Your task to perform on an android device: turn pop-ups on in chrome Image 0: 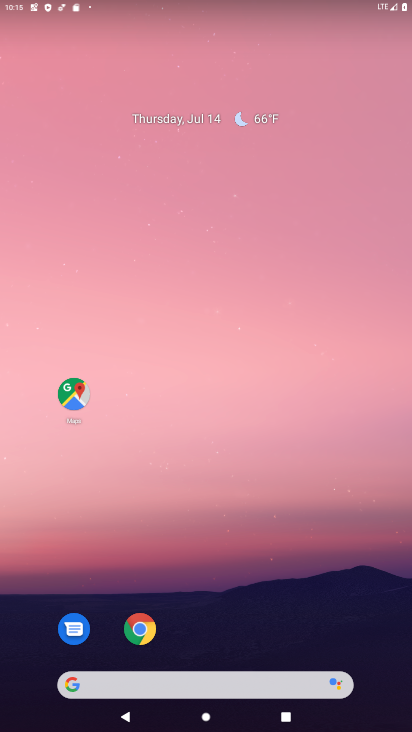
Step 0: press home button
Your task to perform on an android device: turn pop-ups on in chrome Image 1: 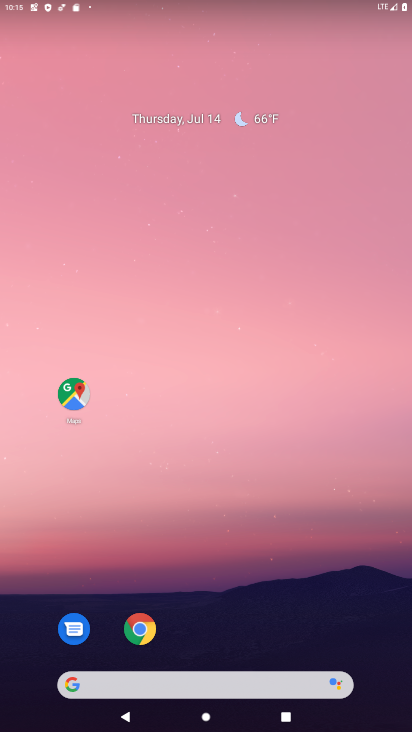
Step 1: drag from (267, 524) to (349, 47)
Your task to perform on an android device: turn pop-ups on in chrome Image 2: 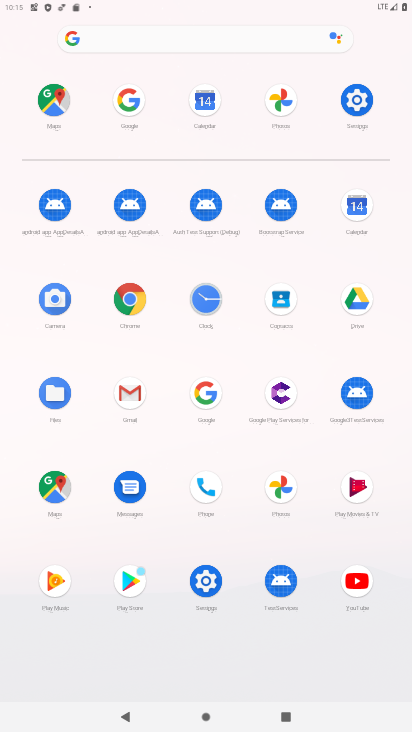
Step 2: click (139, 297)
Your task to perform on an android device: turn pop-ups on in chrome Image 3: 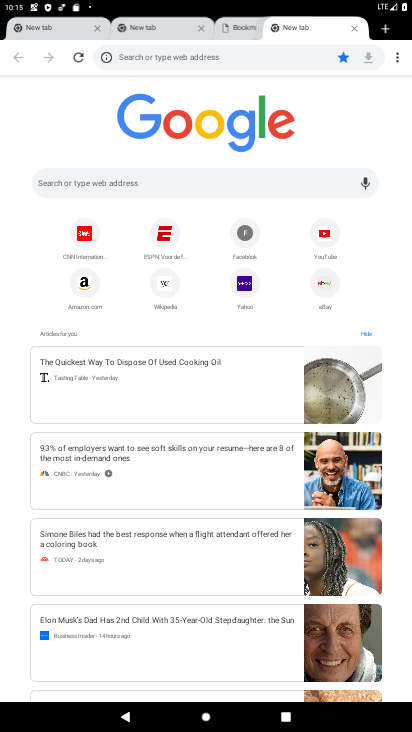
Step 3: click (393, 55)
Your task to perform on an android device: turn pop-ups on in chrome Image 4: 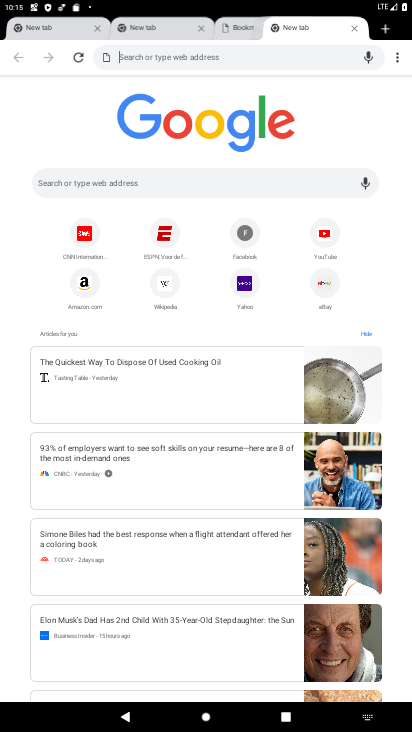
Step 4: click (393, 55)
Your task to perform on an android device: turn pop-ups on in chrome Image 5: 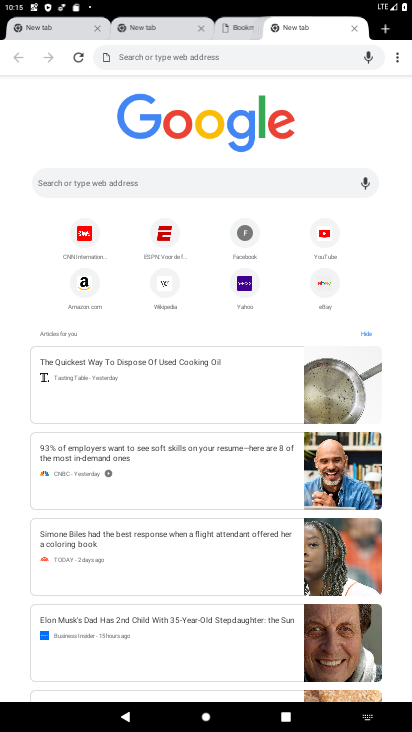
Step 5: drag from (393, 55) to (276, 262)
Your task to perform on an android device: turn pop-ups on in chrome Image 6: 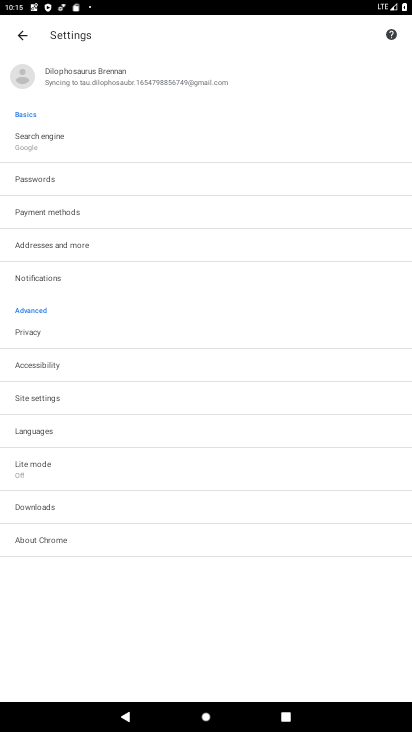
Step 6: click (29, 397)
Your task to perform on an android device: turn pop-ups on in chrome Image 7: 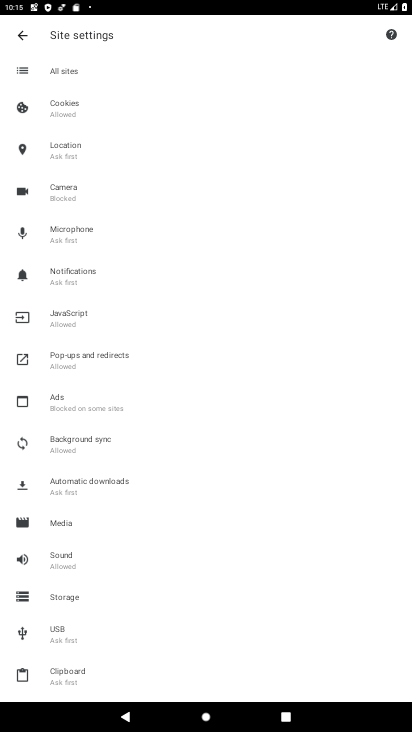
Step 7: click (50, 357)
Your task to perform on an android device: turn pop-ups on in chrome Image 8: 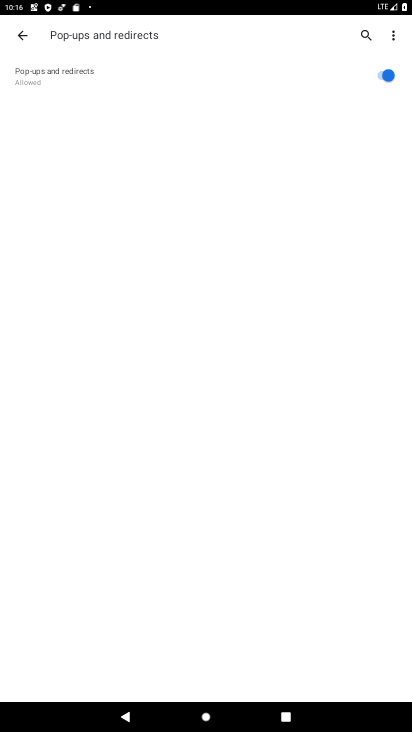
Step 8: task complete